Your task to perform on an android device: create a new album in the google photos Image 0: 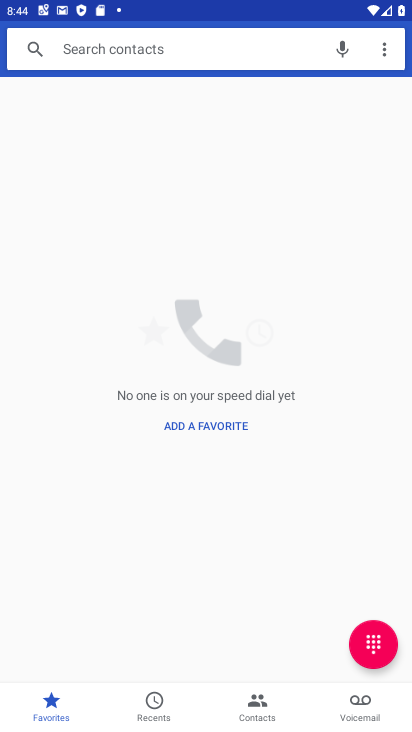
Step 0: press home button
Your task to perform on an android device: create a new album in the google photos Image 1: 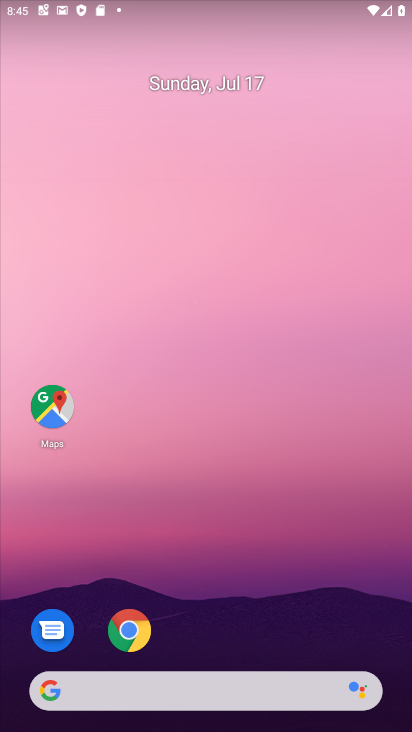
Step 1: drag from (351, 602) to (371, 119)
Your task to perform on an android device: create a new album in the google photos Image 2: 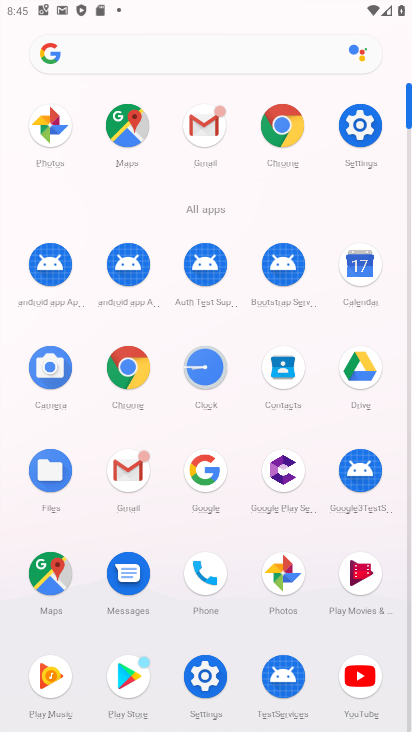
Step 2: click (280, 580)
Your task to perform on an android device: create a new album in the google photos Image 3: 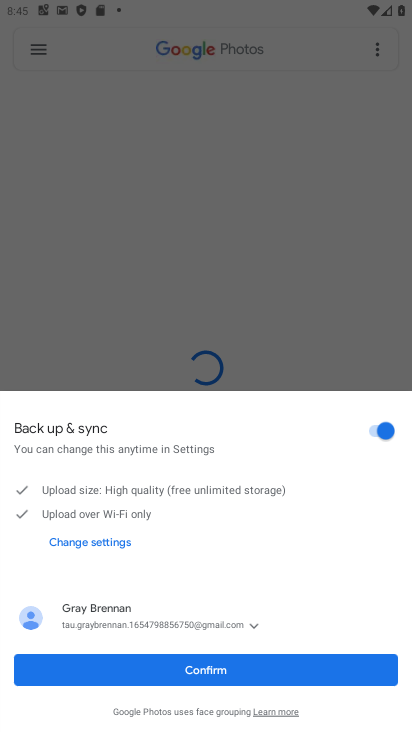
Step 3: press home button
Your task to perform on an android device: create a new album in the google photos Image 4: 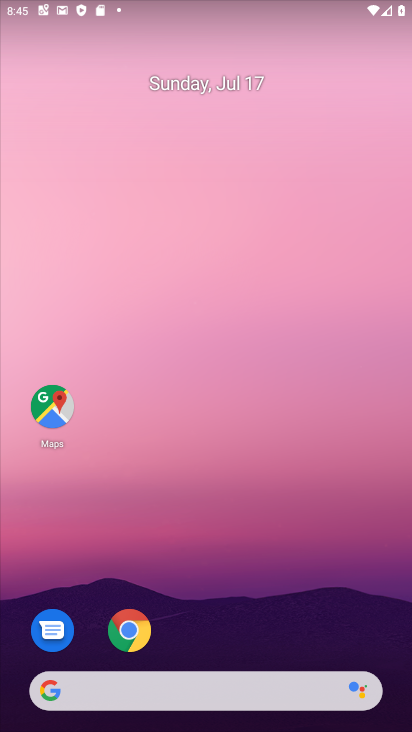
Step 4: drag from (332, 595) to (358, 130)
Your task to perform on an android device: create a new album in the google photos Image 5: 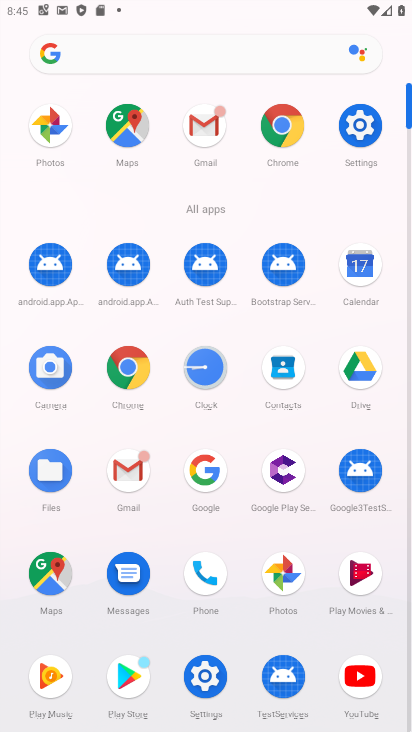
Step 5: click (289, 564)
Your task to perform on an android device: create a new album in the google photos Image 6: 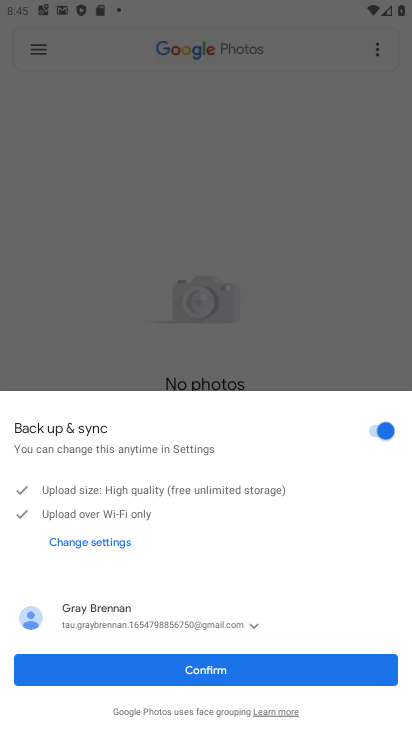
Step 6: click (278, 677)
Your task to perform on an android device: create a new album in the google photos Image 7: 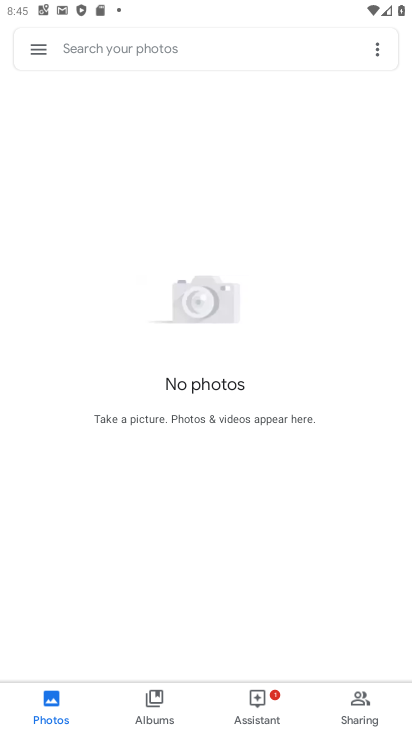
Step 7: click (378, 54)
Your task to perform on an android device: create a new album in the google photos Image 8: 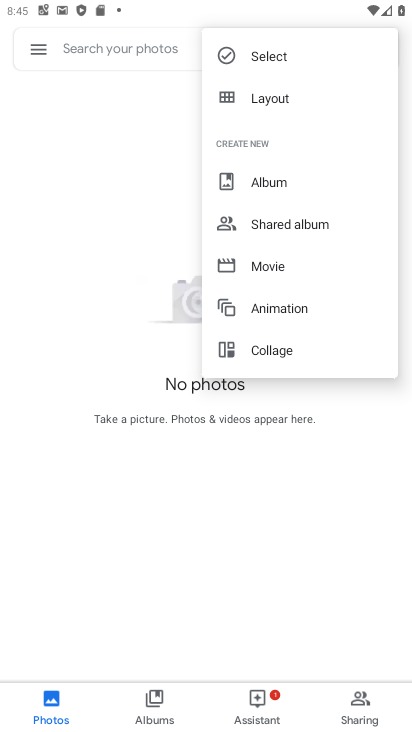
Step 8: click (313, 182)
Your task to perform on an android device: create a new album in the google photos Image 9: 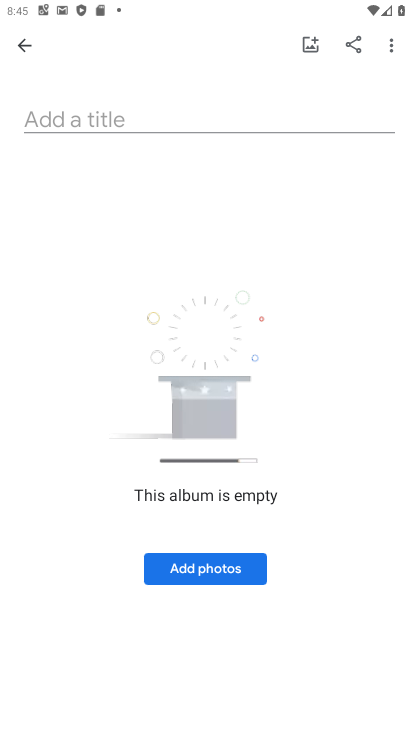
Step 9: click (159, 119)
Your task to perform on an android device: create a new album in the google photos Image 10: 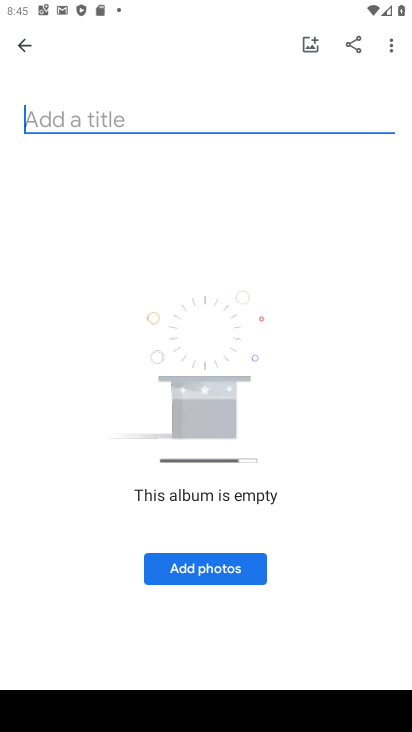
Step 10: type "fav"
Your task to perform on an android device: create a new album in the google photos Image 11: 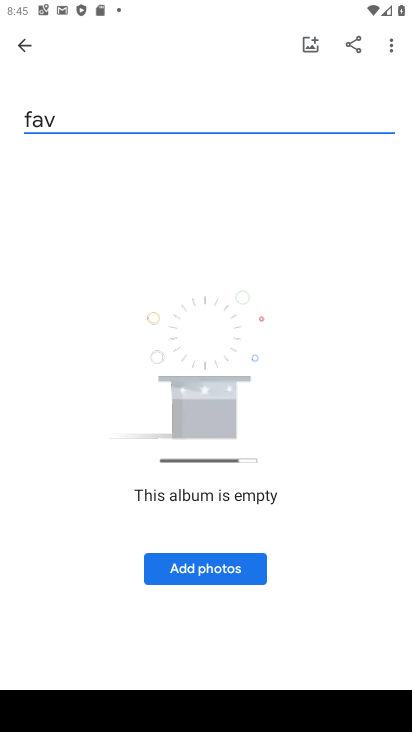
Step 11: click (213, 575)
Your task to perform on an android device: create a new album in the google photos Image 12: 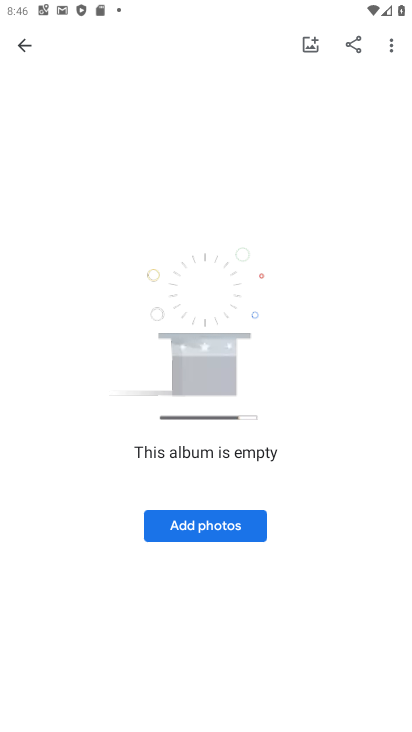
Step 12: click (226, 529)
Your task to perform on an android device: create a new album in the google photos Image 13: 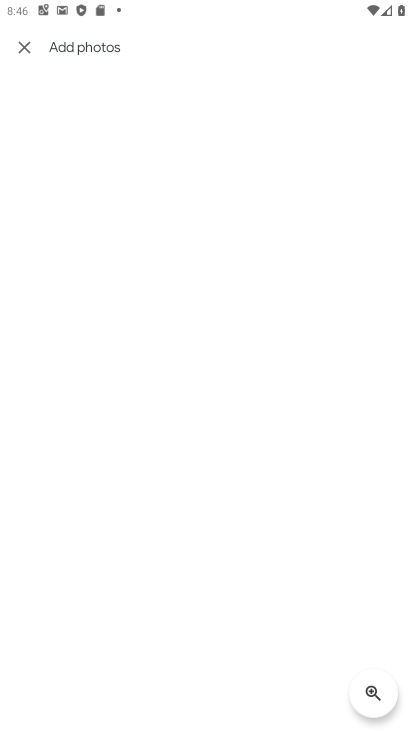
Step 13: task complete